Your task to perform on an android device: check google app version Image 0: 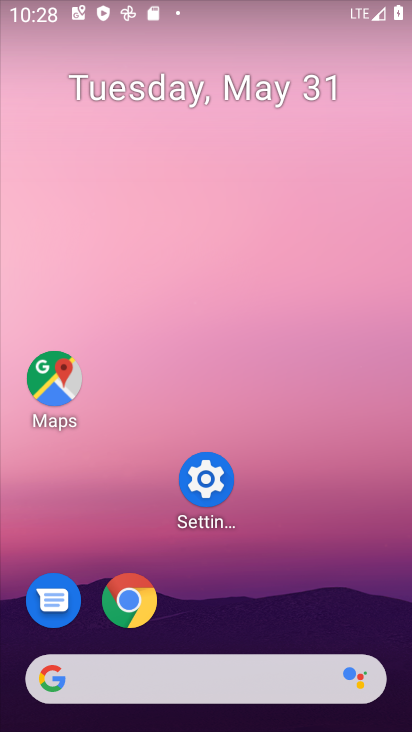
Step 0: press home button
Your task to perform on an android device: check google app version Image 1: 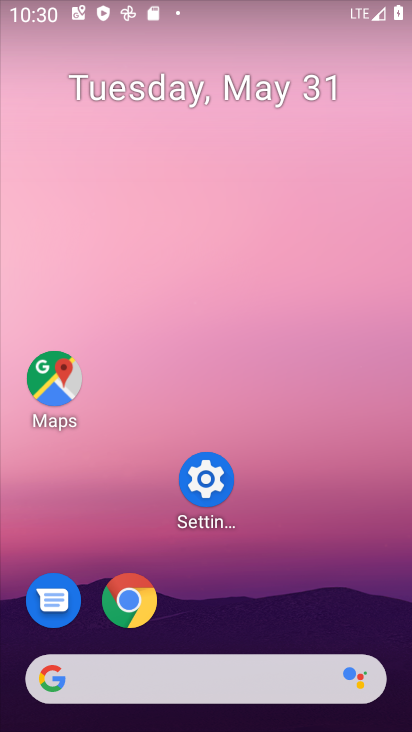
Step 1: click (189, 503)
Your task to perform on an android device: check google app version Image 2: 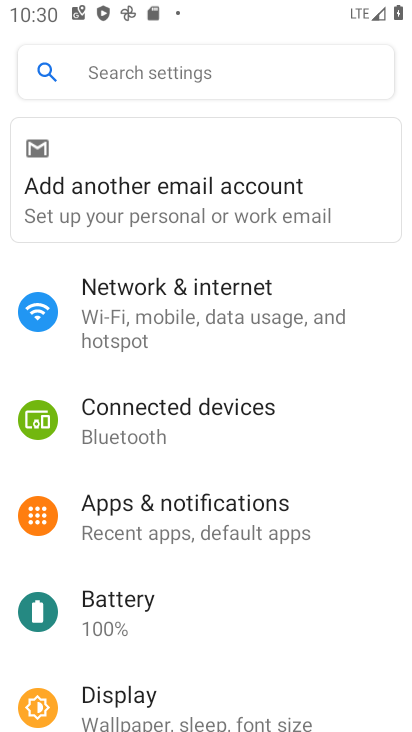
Step 2: click (172, 92)
Your task to perform on an android device: check google app version Image 3: 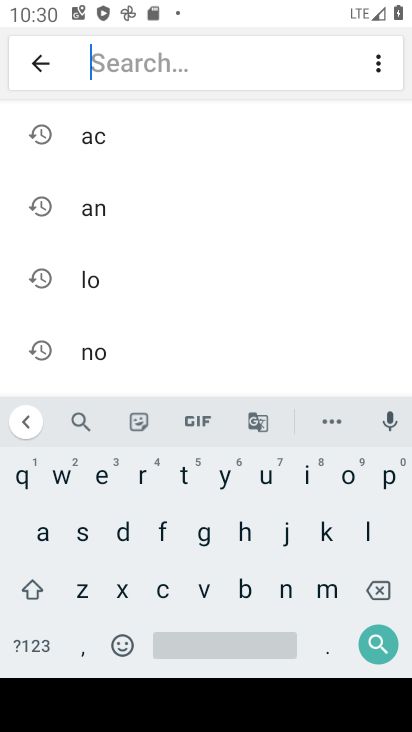
Step 3: click (39, 550)
Your task to perform on an android device: check google app version Image 4: 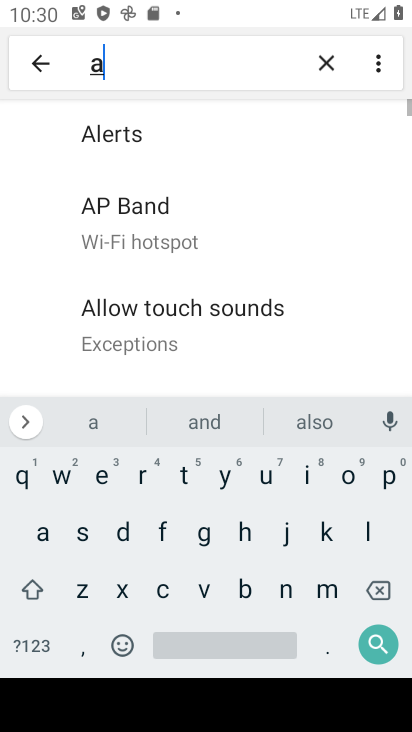
Step 4: click (287, 584)
Your task to perform on an android device: check google app version Image 5: 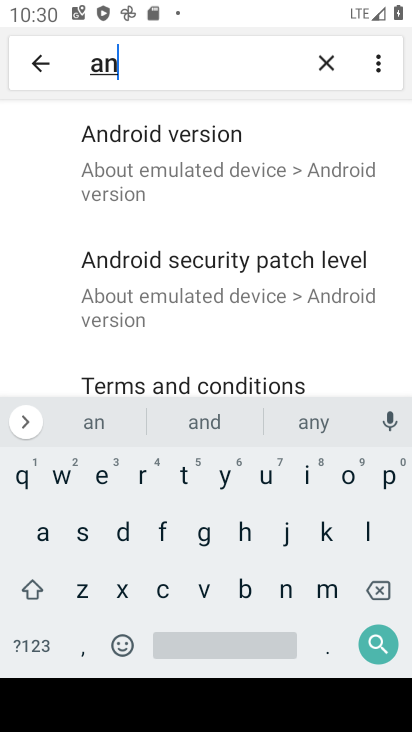
Step 5: click (204, 147)
Your task to perform on an android device: check google app version Image 6: 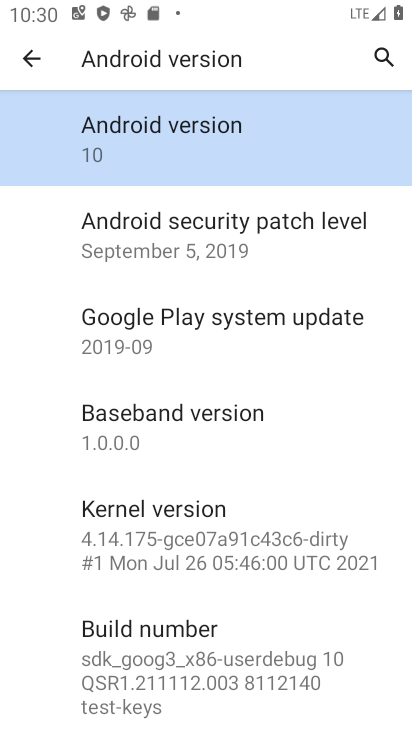
Step 6: task complete